Your task to perform on an android device: open wifi settings Image 0: 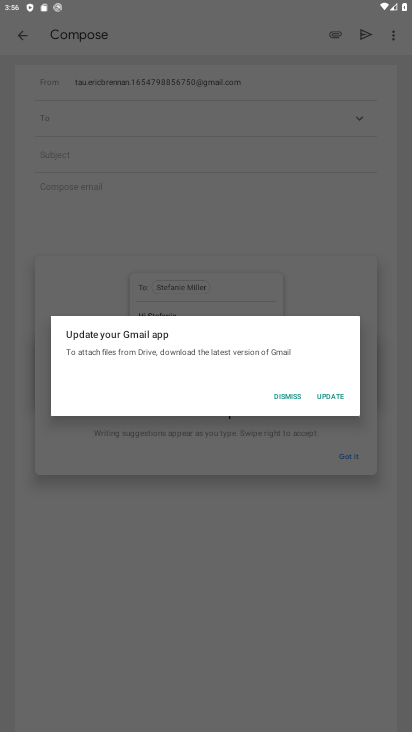
Step 0: drag from (185, 186) to (232, 616)
Your task to perform on an android device: open wifi settings Image 1: 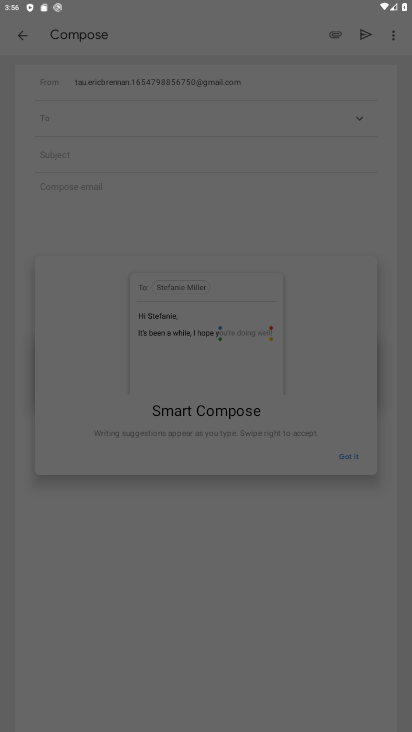
Step 1: drag from (93, 13) to (142, 535)
Your task to perform on an android device: open wifi settings Image 2: 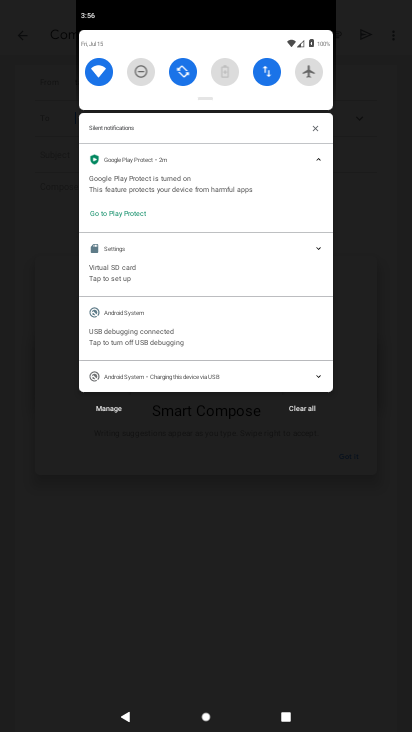
Step 2: click (89, 78)
Your task to perform on an android device: open wifi settings Image 3: 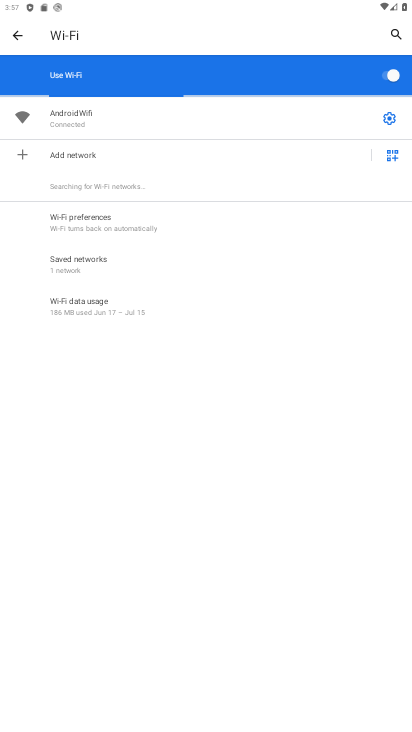
Step 3: task complete